Your task to perform on an android device: Open the map Image 0: 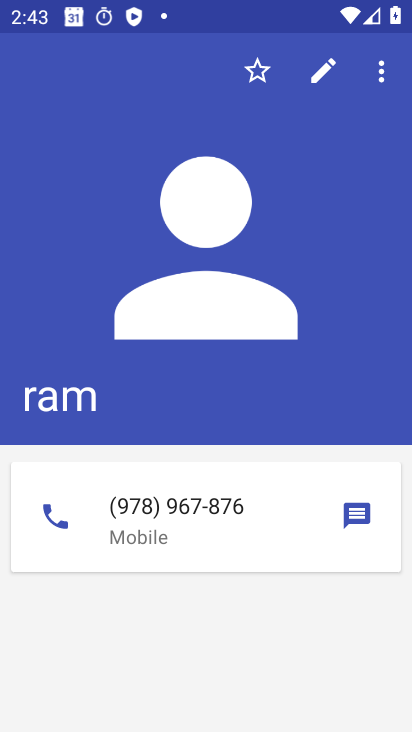
Step 0: press home button
Your task to perform on an android device: Open the map Image 1: 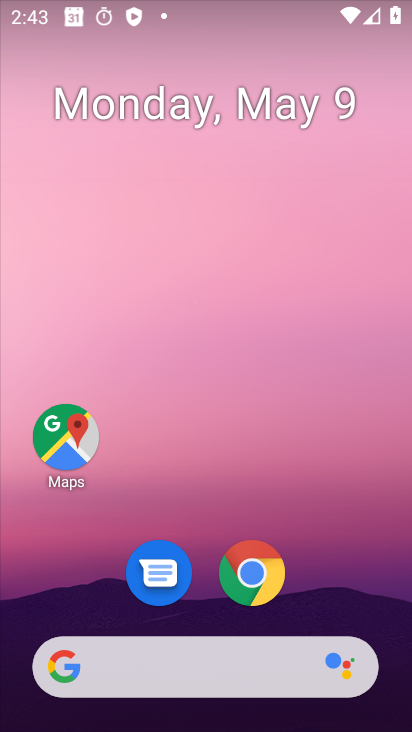
Step 1: click (47, 432)
Your task to perform on an android device: Open the map Image 2: 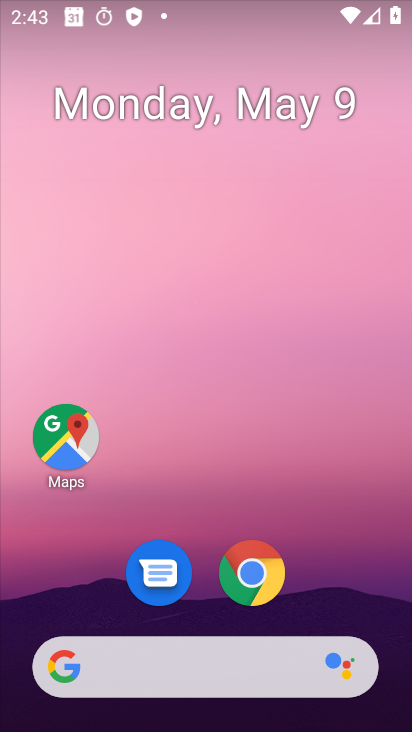
Step 2: click (48, 430)
Your task to perform on an android device: Open the map Image 3: 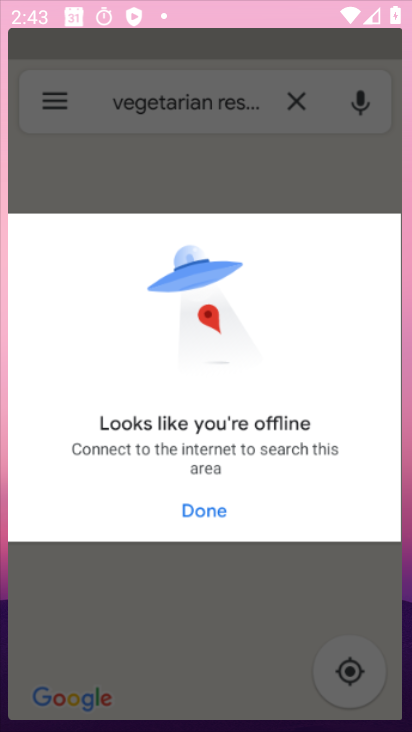
Step 3: click (59, 424)
Your task to perform on an android device: Open the map Image 4: 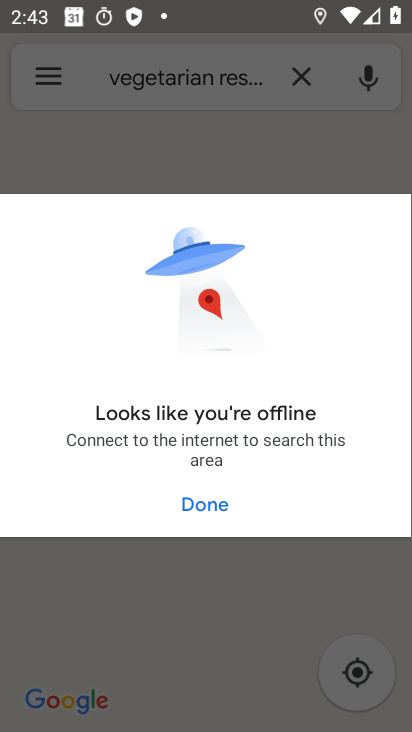
Step 4: task complete